Your task to perform on an android device: Go to Android settings Image 0: 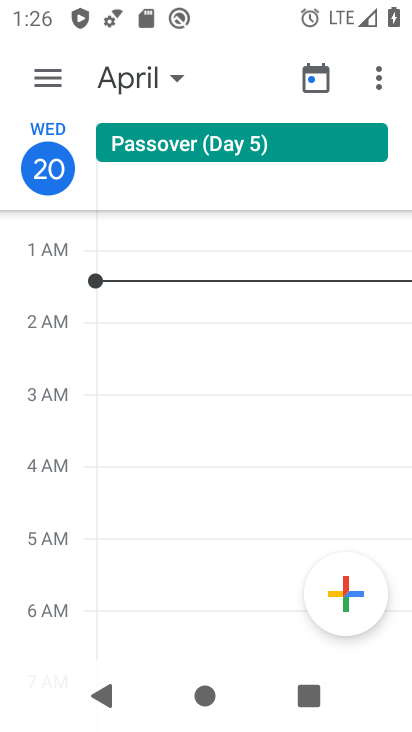
Step 0: press home button
Your task to perform on an android device: Go to Android settings Image 1: 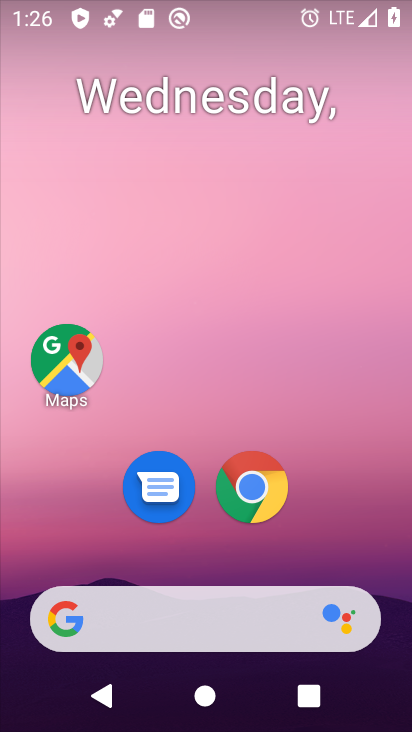
Step 1: drag from (367, 533) to (271, 91)
Your task to perform on an android device: Go to Android settings Image 2: 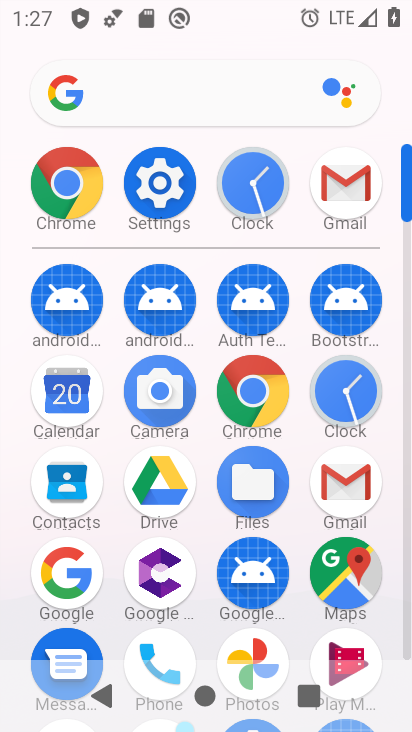
Step 2: click (153, 188)
Your task to perform on an android device: Go to Android settings Image 3: 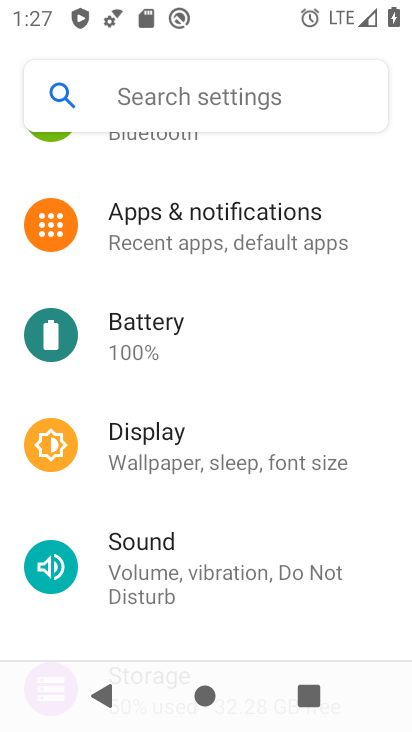
Step 3: drag from (129, 589) to (211, 184)
Your task to perform on an android device: Go to Android settings Image 4: 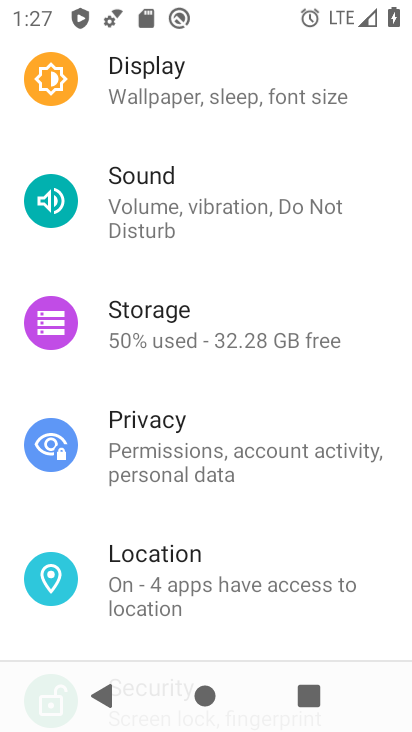
Step 4: drag from (187, 537) to (233, 127)
Your task to perform on an android device: Go to Android settings Image 5: 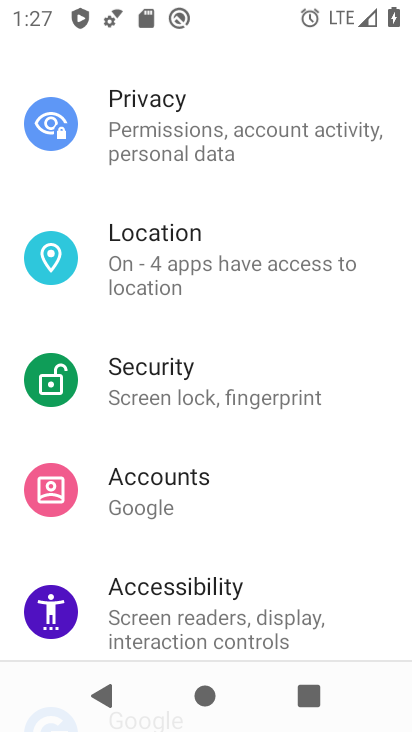
Step 5: drag from (148, 601) to (200, 136)
Your task to perform on an android device: Go to Android settings Image 6: 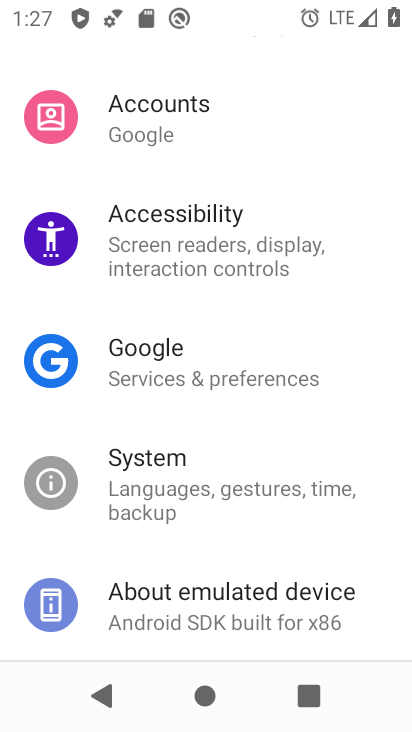
Step 6: click (171, 595)
Your task to perform on an android device: Go to Android settings Image 7: 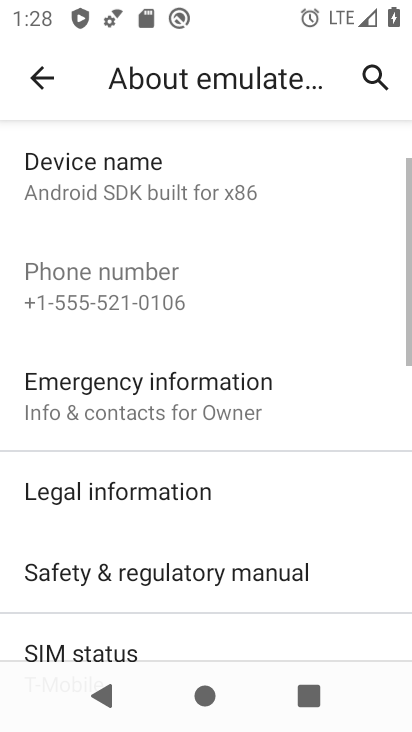
Step 7: drag from (80, 638) to (191, 175)
Your task to perform on an android device: Go to Android settings Image 8: 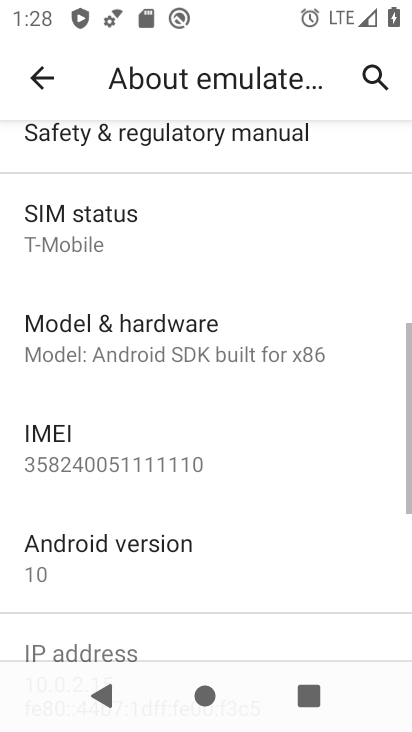
Step 8: click (151, 565)
Your task to perform on an android device: Go to Android settings Image 9: 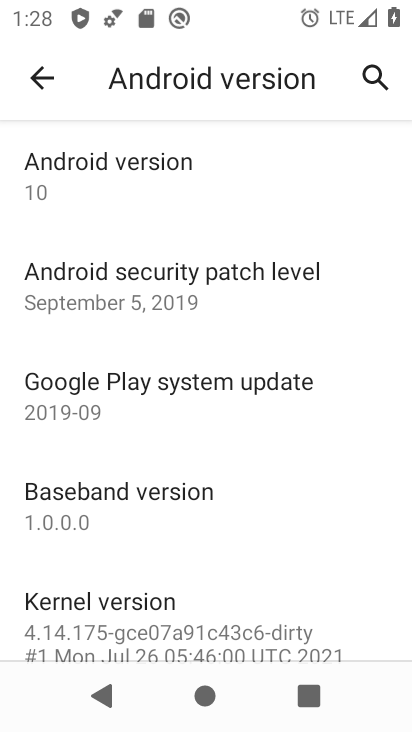
Step 9: task complete